Your task to perform on an android device: toggle sleep mode Image 0: 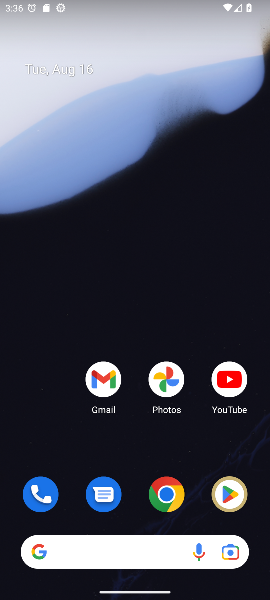
Step 0: drag from (117, 518) to (79, 0)
Your task to perform on an android device: toggle sleep mode Image 1: 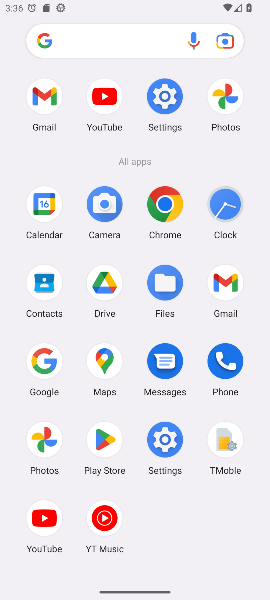
Step 1: click (160, 453)
Your task to perform on an android device: toggle sleep mode Image 2: 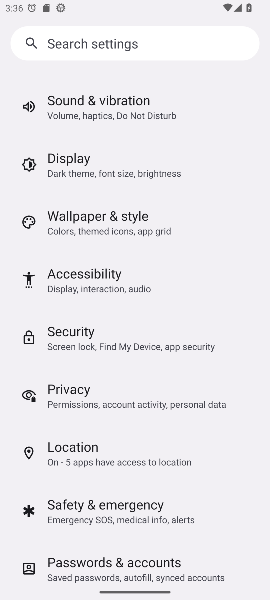
Step 2: task complete